Your task to perform on an android device: Open privacy settings Image 0: 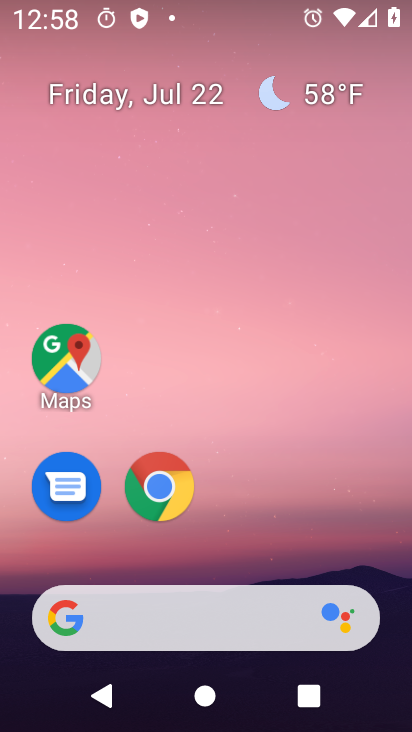
Step 0: drag from (356, 552) to (344, 205)
Your task to perform on an android device: Open privacy settings Image 1: 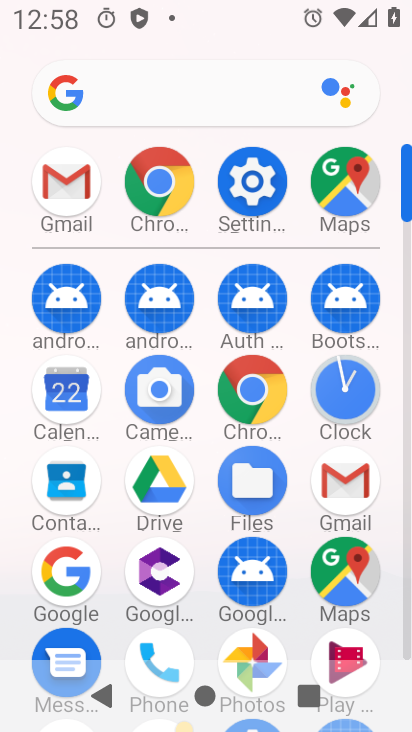
Step 1: click (261, 185)
Your task to perform on an android device: Open privacy settings Image 2: 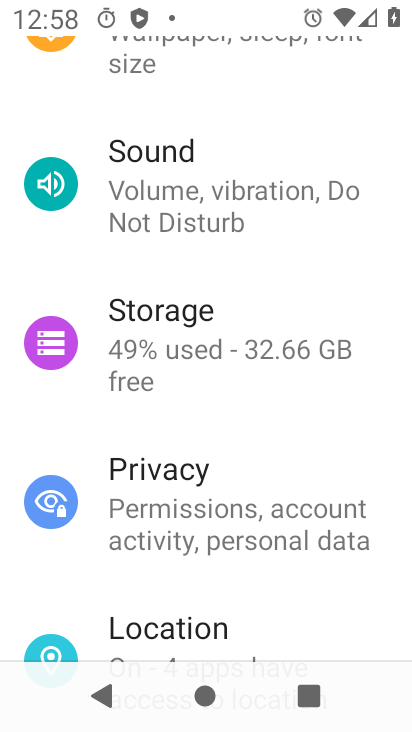
Step 2: drag from (360, 296) to (385, 499)
Your task to perform on an android device: Open privacy settings Image 3: 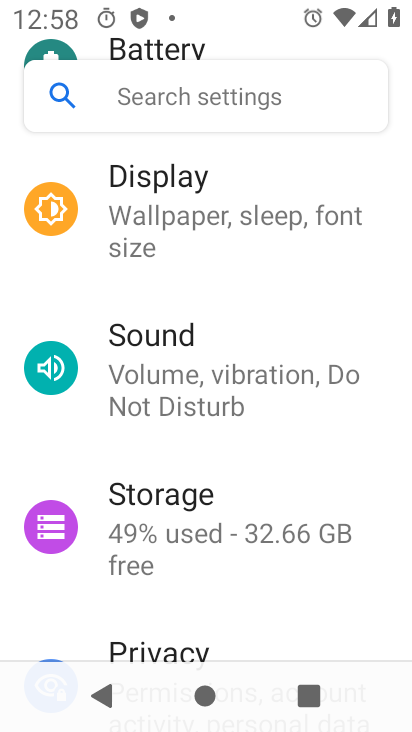
Step 3: drag from (359, 294) to (358, 390)
Your task to perform on an android device: Open privacy settings Image 4: 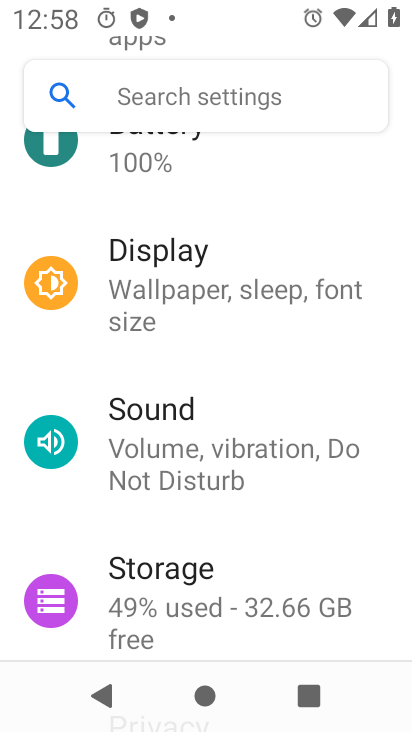
Step 4: drag from (360, 302) to (357, 397)
Your task to perform on an android device: Open privacy settings Image 5: 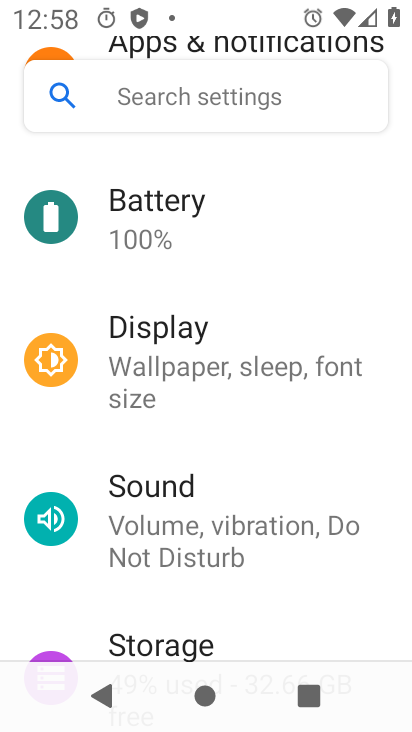
Step 5: drag from (358, 241) to (357, 348)
Your task to perform on an android device: Open privacy settings Image 6: 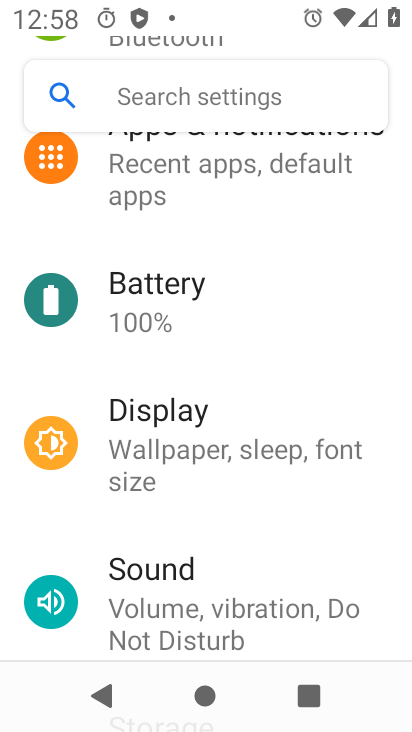
Step 6: drag from (342, 226) to (338, 311)
Your task to perform on an android device: Open privacy settings Image 7: 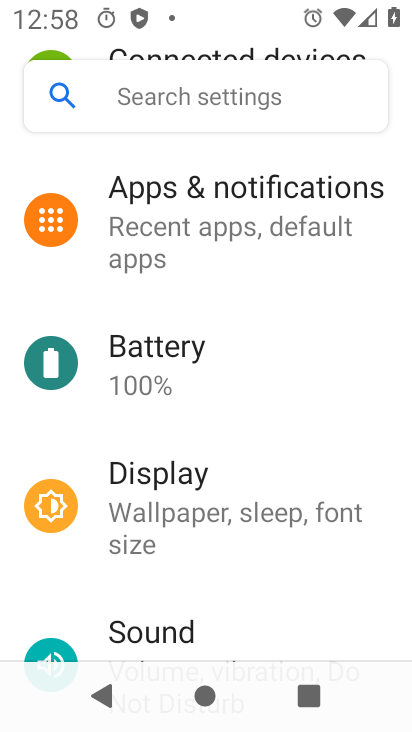
Step 7: drag from (334, 197) to (332, 337)
Your task to perform on an android device: Open privacy settings Image 8: 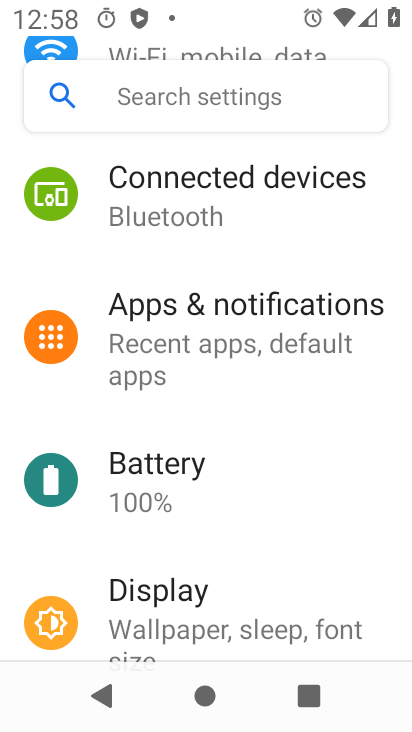
Step 8: drag from (322, 232) to (320, 336)
Your task to perform on an android device: Open privacy settings Image 9: 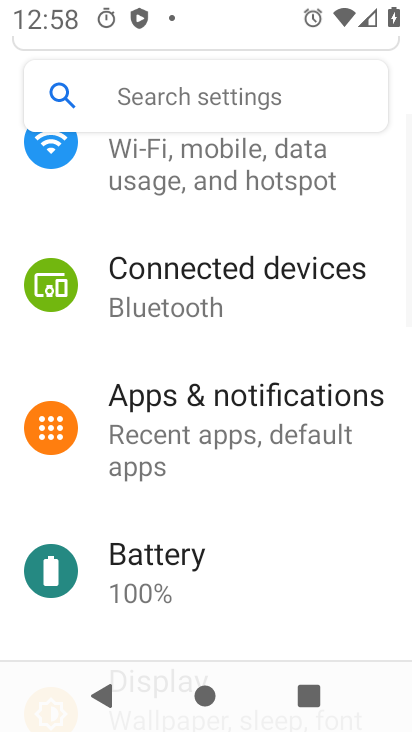
Step 9: drag from (313, 248) to (321, 361)
Your task to perform on an android device: Open privacy settings Image 10: 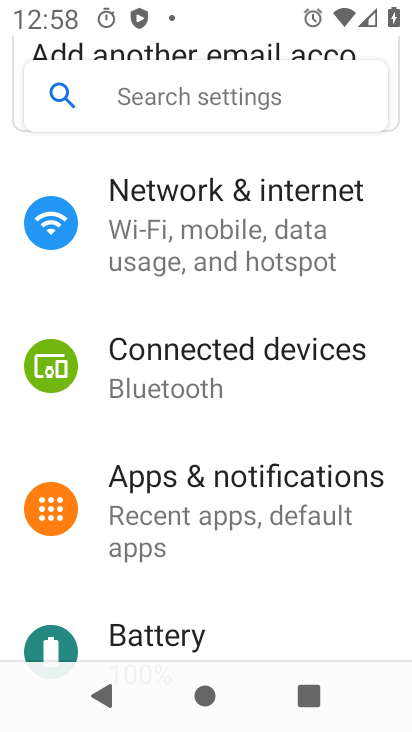
Step 10: drag from (328, 401) to (326, 328)
Your task to perform on an android device: Open privacy settings Image 11: 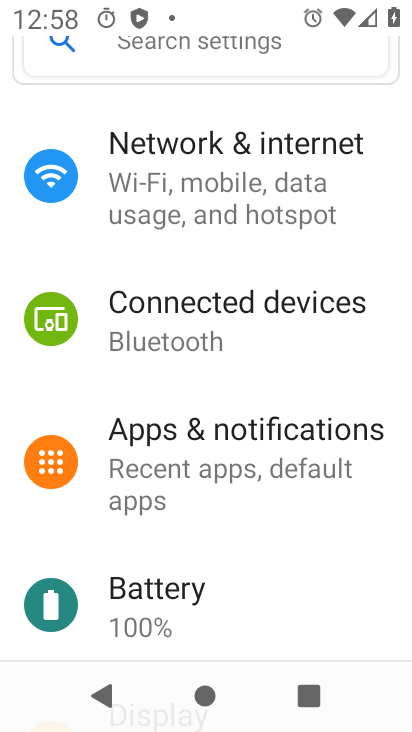
Step 11: drag from (344, 429) to (343, 367)
Your task to perform on an android device: Open privacy settings Image 12: 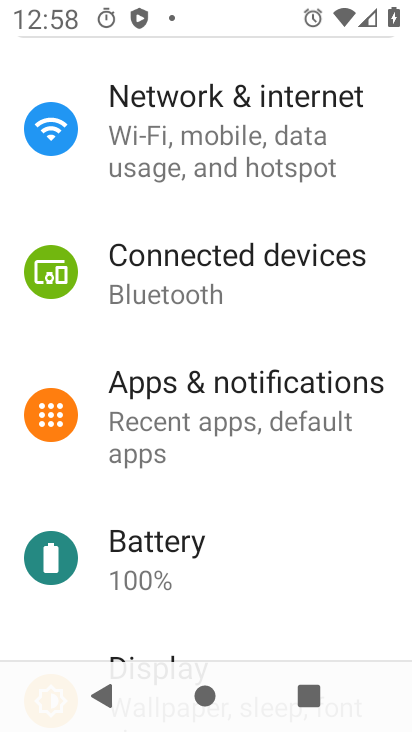
Step 12: drag from (355, 428) to (353, 379)
Your task to perform on an android device: Open privacy settings Image 13: 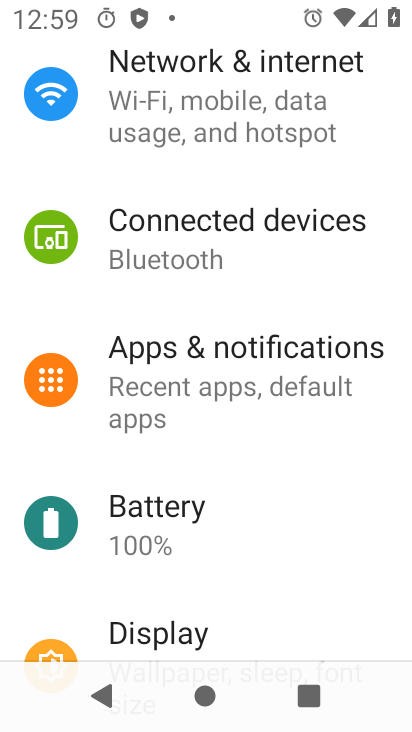
Step 13: drag from (350, 486) to (338, 397)
Your task to perform on an android device: Open privacy settings Image 14: 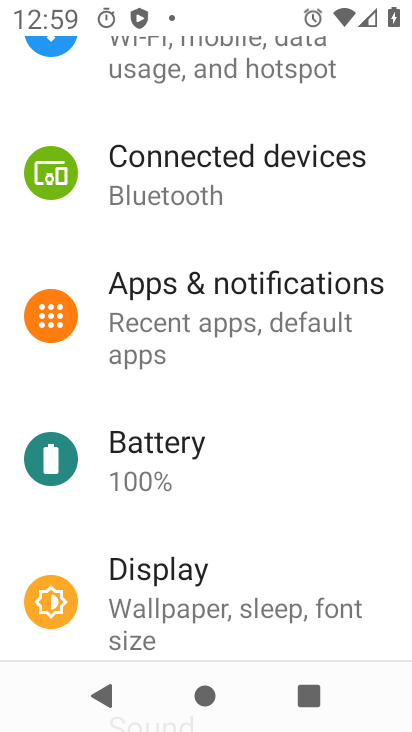
Step 14: drag from (353, 491) to (351, 439)
Your task to perform on an android device: Open privacy settings Image 15: 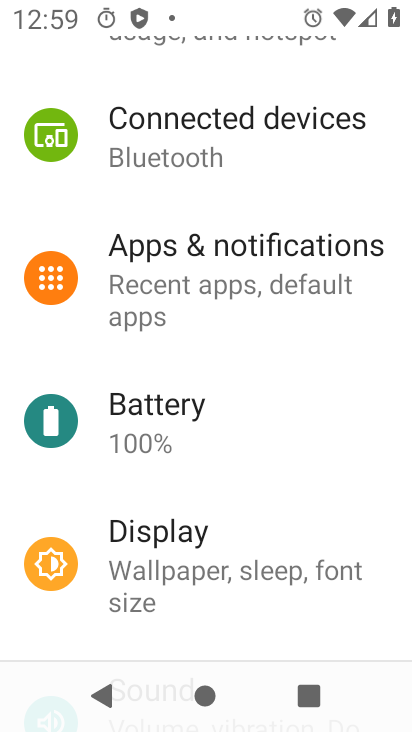
Step 15: drag from (358, 487) to (342, 366)
Your task to perform on an android device: Open privacy settings Image 16: 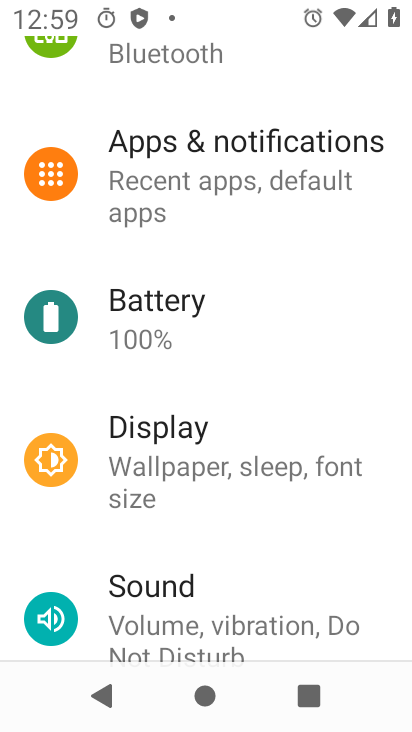
Step 16: drag from (333, 488) to (334, 398)
Your task to perform on an android device: Open privacy settings Image 17: 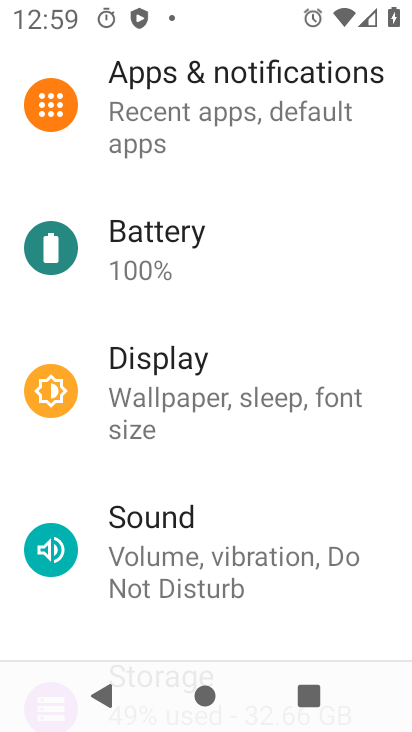
Step 17: drag from (344, 482) to (342, 428)
Your task to perform on an android device: Open privacy settings Image 18: 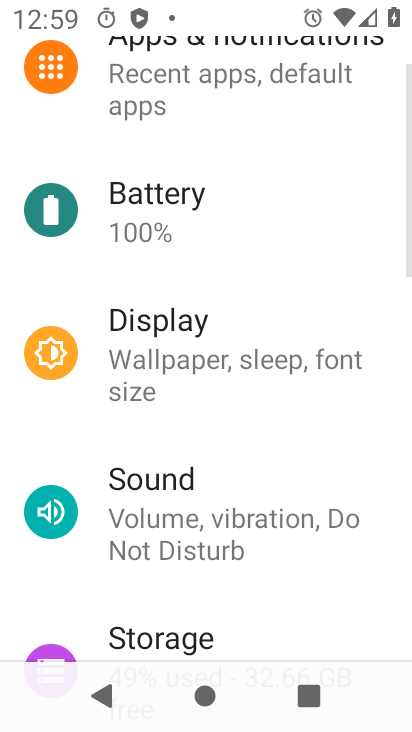
Step 18: drag from (343, 499) to (351, 367)
Your task to perform on an android device: Open privacy settings Image 19: 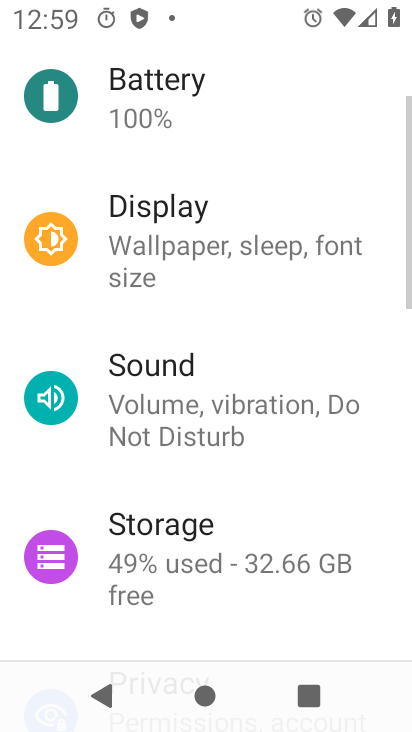
Step 19: drag from (364, 479) to (366, 409)
Your task to perform on an android device: Open privacy settings Image 20: 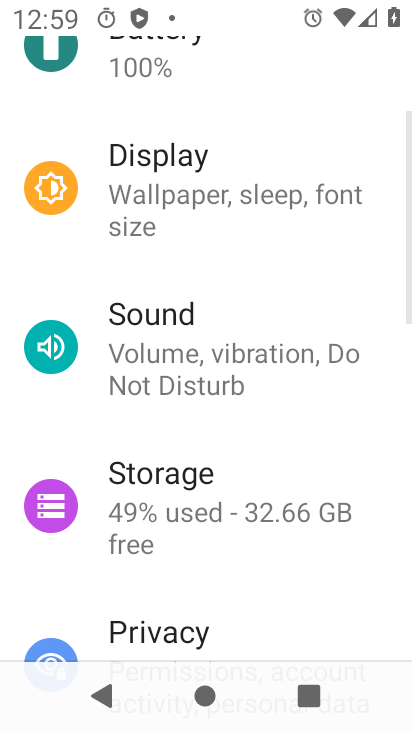
Step 20: drag from (356, 410) to (344, 329)
Your task to perform on an android device: Open privacy settings Image 21: 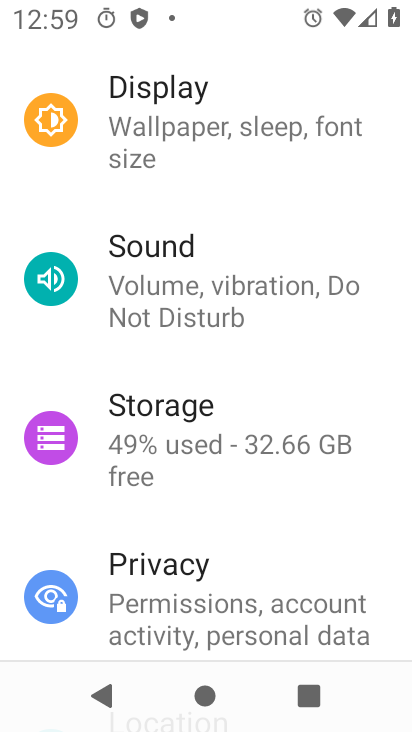
Step 21: drag from (336, 531) to (334, 324)
Your task to perform on an android device: Open privacy settings Image 22: 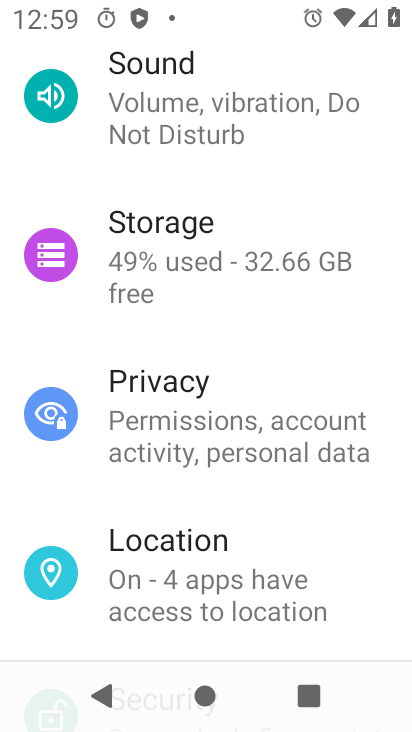
Step 22: click (335, 459)
Your task to perform on an android device: Open privacy settings Image 23: 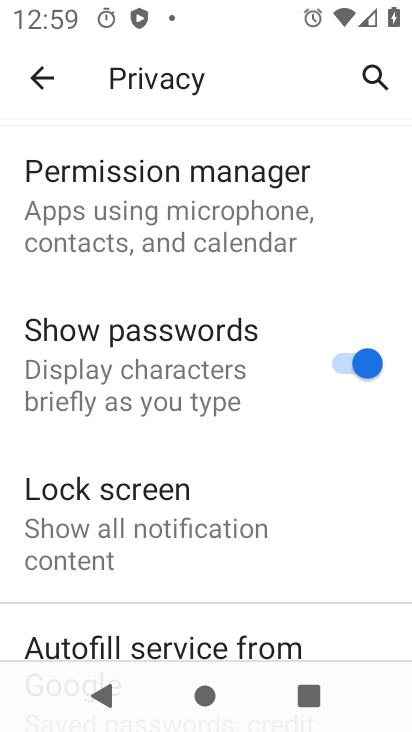
Step 23: task complete